Your task to perform on an android device: Open Youtube and go to the subscriptions tab Image 0: 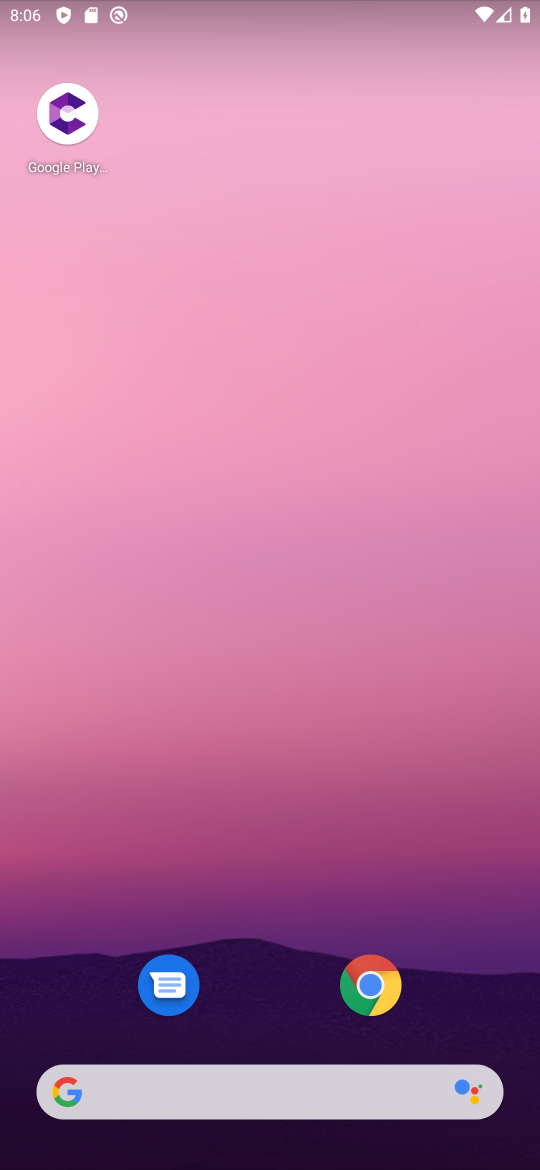
Step 0: drag from (250, 981) to (244, 275)
Your task to perform on an android device: Open Youtube and go to the subscriptions tab Image 1: 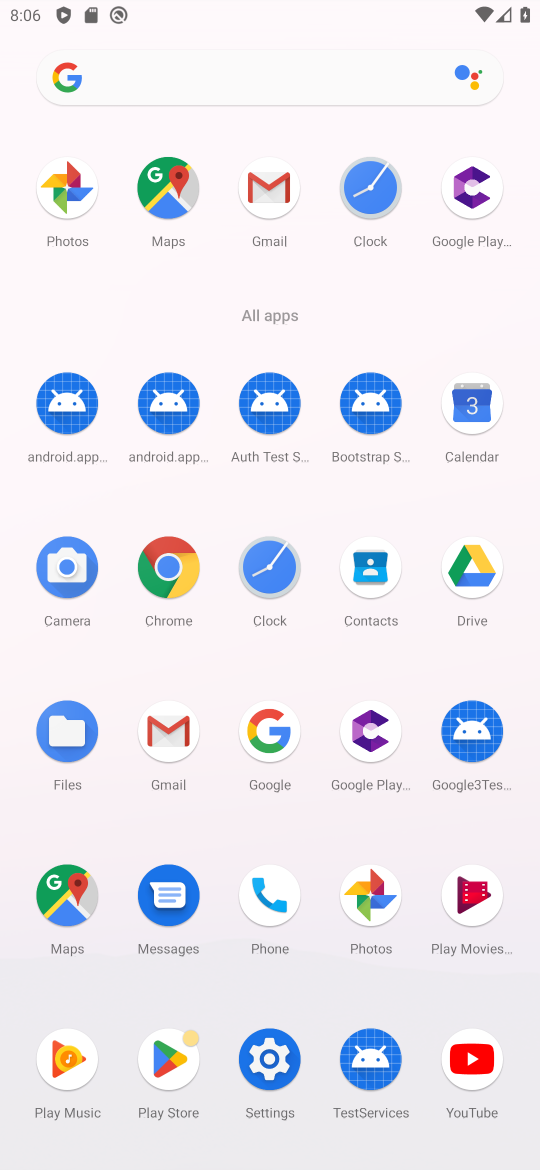
Step 1: click (462, 1055)
Your task to perform on an android device: Open Youtube and go to the subscriptions tab Image 2: 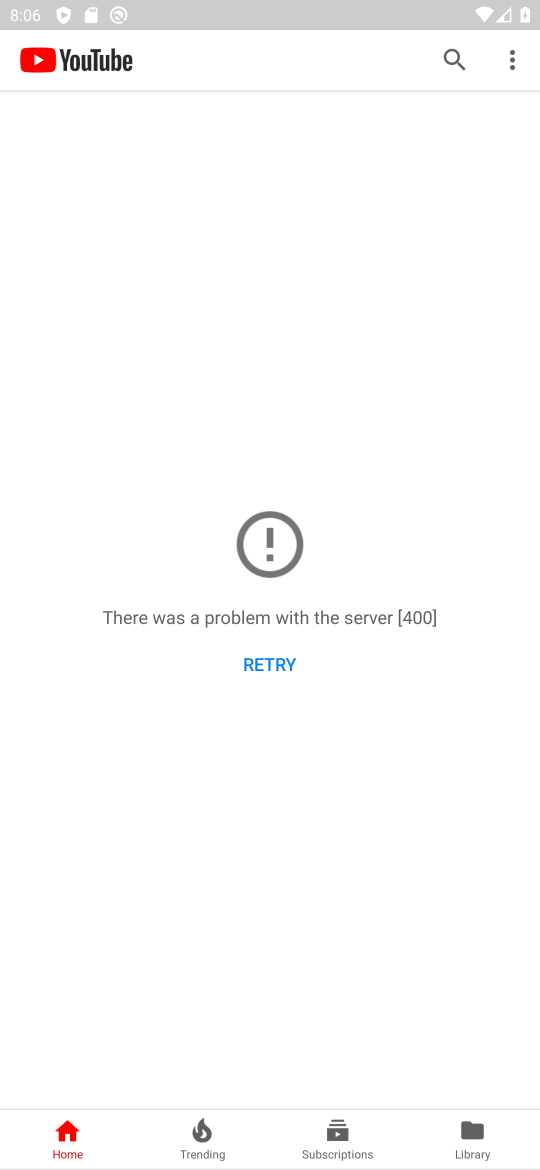
Step 2: click (322, 1109)
Your task to perform on an android device: Open Youtube and go to the subscriptions tab Image 3: 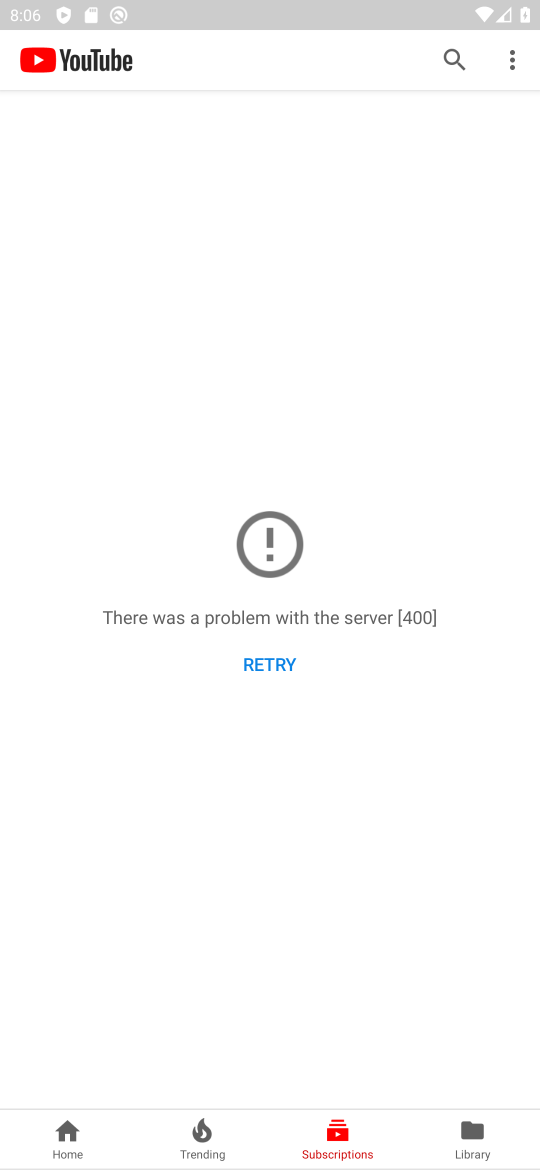
Step 3: task complete